Your task to perform on an android device: toggle translation in the chrome app Image 0: 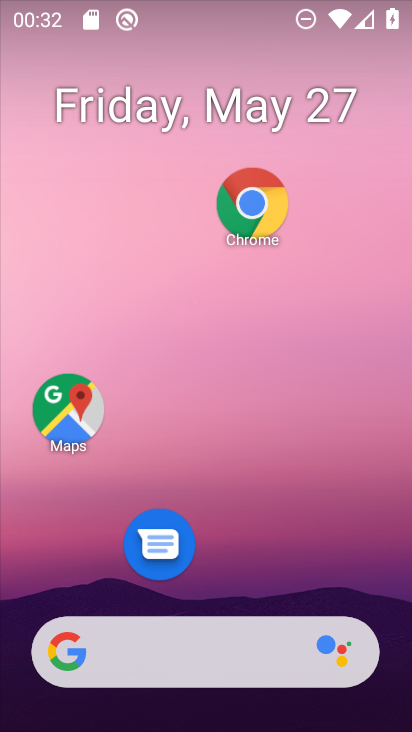
Step 0: drag from (216, 583) to (216, 141)
Your task to perform on an android device: toggle translation in the chrome app Image 1: 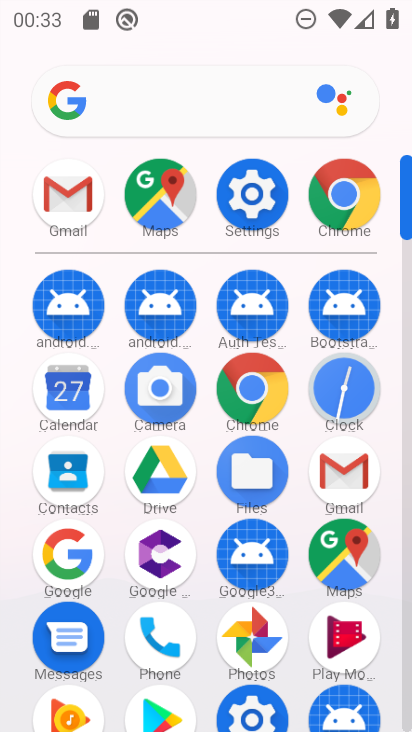
Step 1: click (349, 190)
Your task to perform on an android device: toggle translation in the chrome app Image 2: 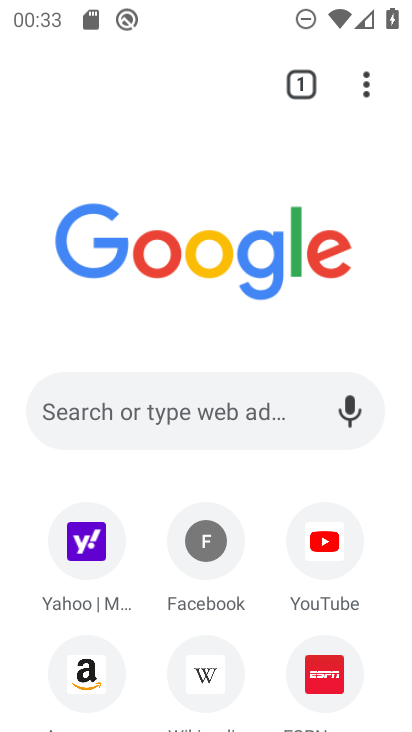
Step 2: drag from (368, 85) to (156, 587)
Your task to perform on an android device: toggle translation in the chrome app Image 3: 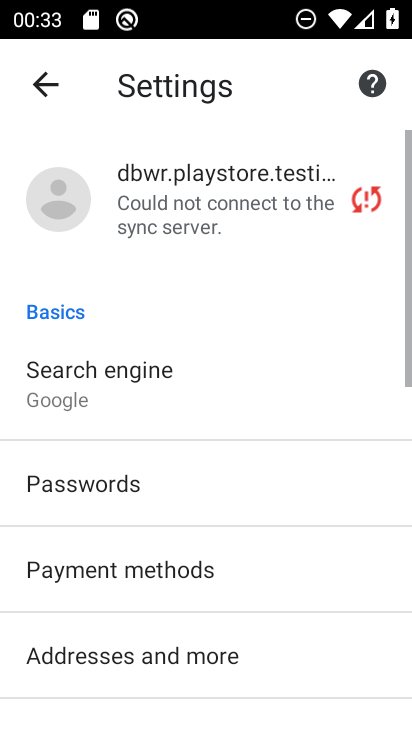
Step 3: drag from (150, 493) to (155, 176)
Your task to perform on an android device: toggle translation in the chrome app Image 4: 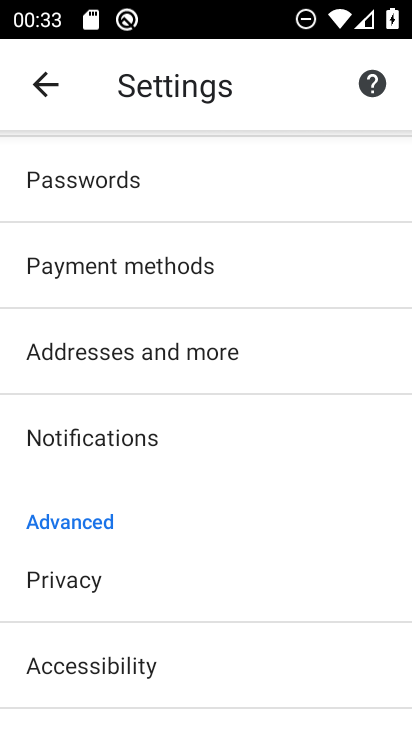
Step 4: drag from (134, 638) to (187, 267)
Your task to perform on an android device: toggle translation in the chrome app Image 5: 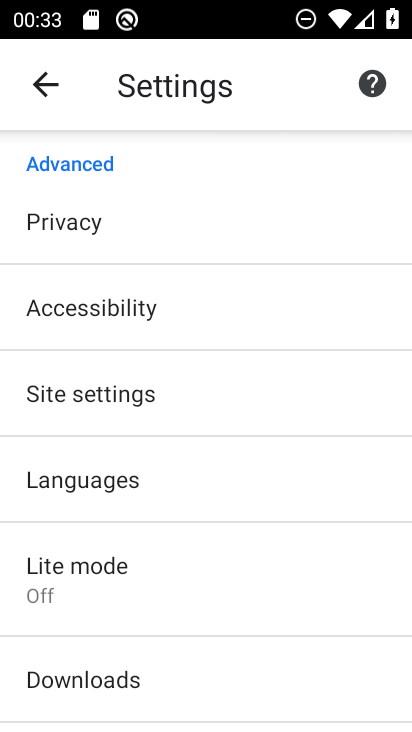
Step 5: click (185, 474)
Your task to perform on an android device: toggle translation in the chrome app Image 6: 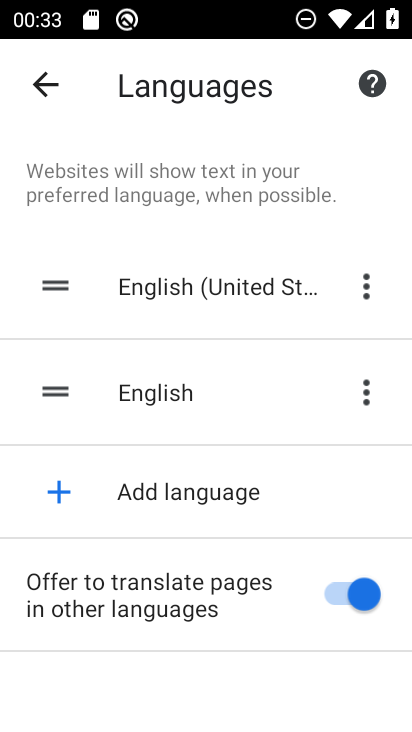
Step 6: click (358, 582)
Your task to perform on an android device: toggle translation in the chrome app Image 7: 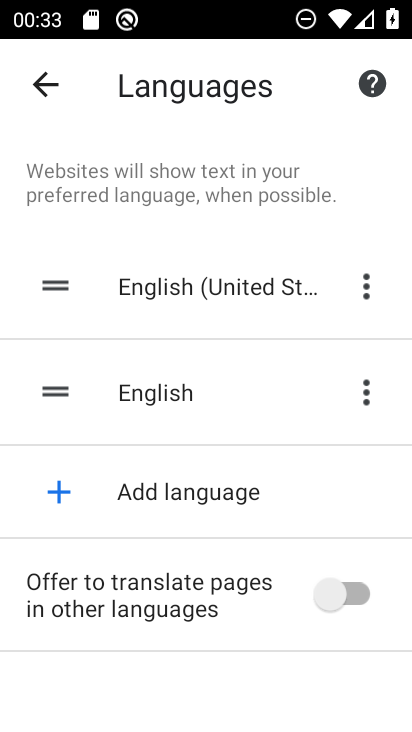
Step 7: task complete